Your task to perform on an android device: What's the weather today? Image 0: 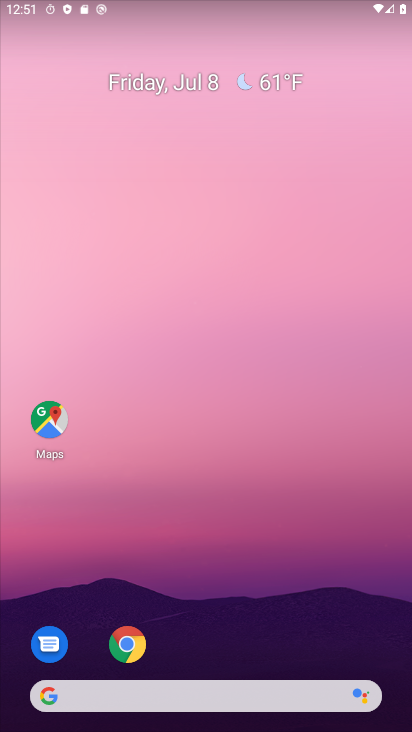
Step 0: drag from (178, 625) to (179, 581)
Your task to perform on an android device: What's the weather today? Image 1: 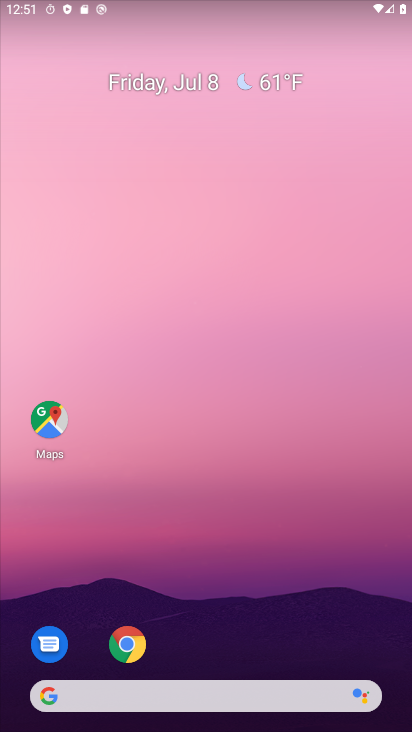
Step 1: click (105, 692)
Your task to perform on an android device: What's the weather today? Image 2: 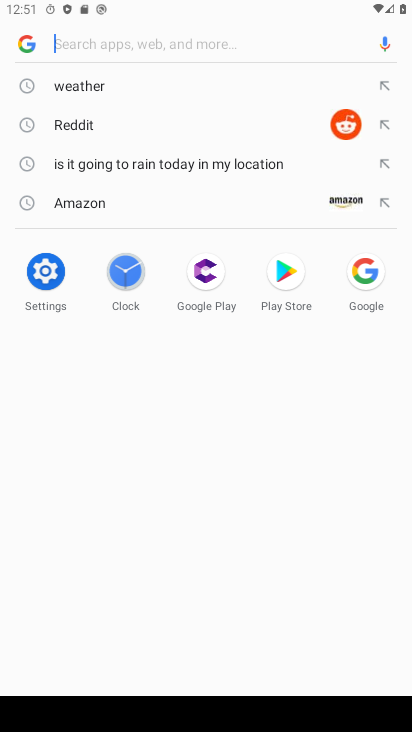
Step 2: click (99, 87)
Your task to perform on an android device: What's the weather today? Image 3: 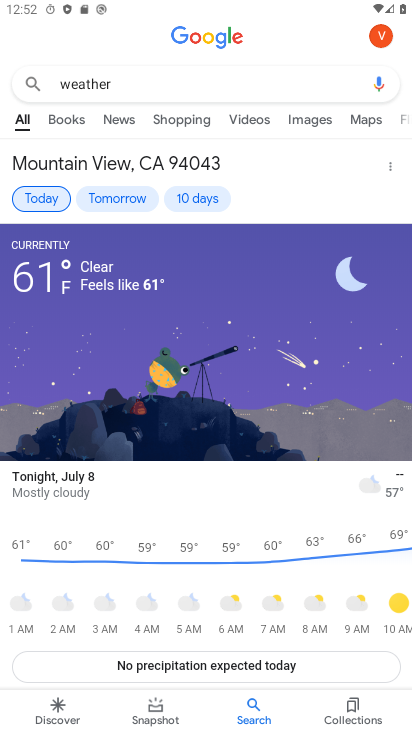
Step 3: task complete